Your task to perform on an android device: star an email in the gmail app Image 0: 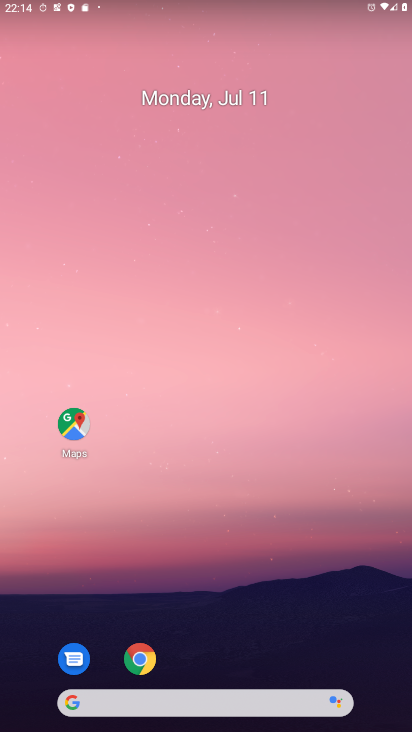
Step 0: click (327, 23)
Your task to perform on an android device: star an email in the gmail app Image 1: 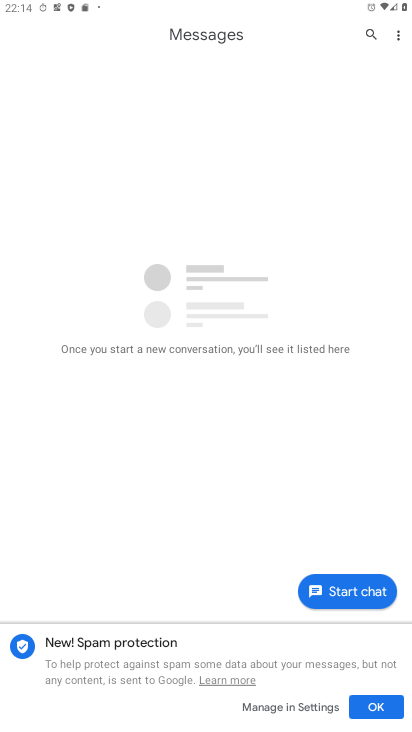
Step 1: press home button
Your task to perform on an android device: star an email in the gmail app Image 2: 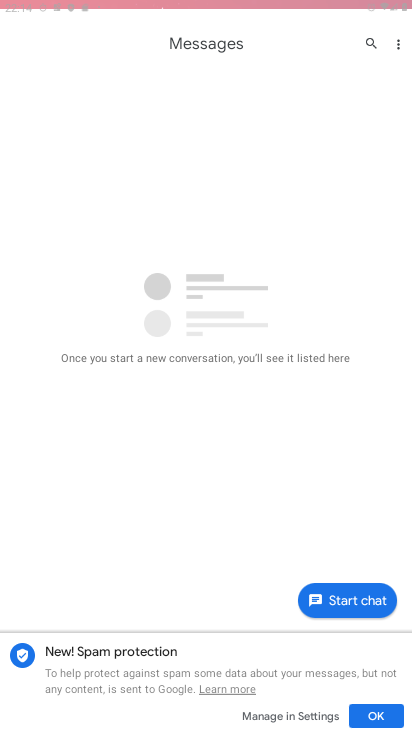
Step 2: drag from (210, 530) to (238, 169)
Your task to perform on an android device: star an email in the gmail app Image 3: 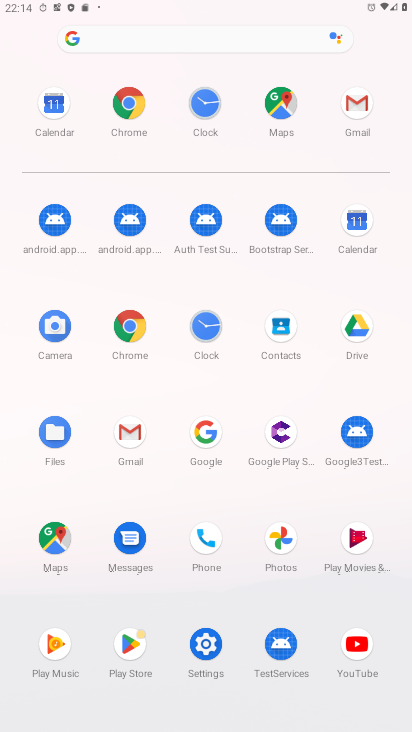
Step 3: click (124, 428)
Your task to perform on an android device: star an email in the gmail app Image 4: 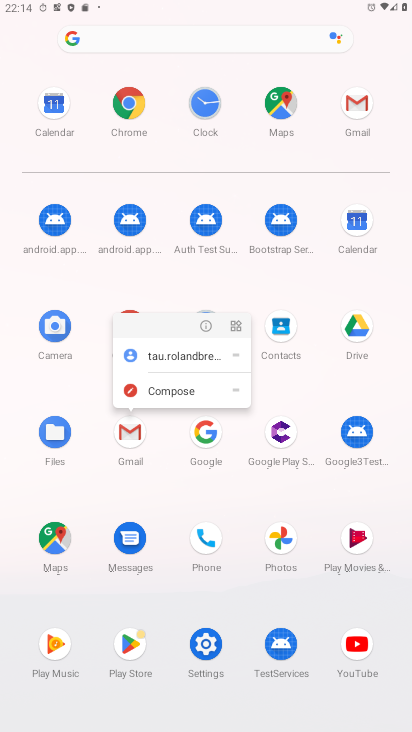
Step 4: click (205, 326)
Your task to perform on an android device: star an email in the gmail app Image 5: 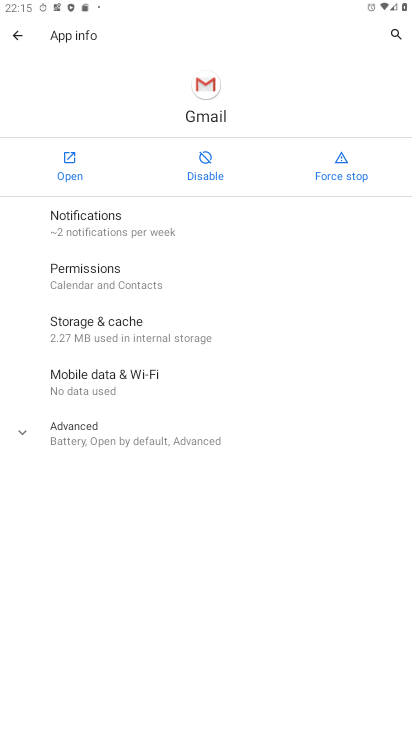
Step 5: click (57, 158)
Your task to perform on an android device: star an email in the gmail app Image 6: 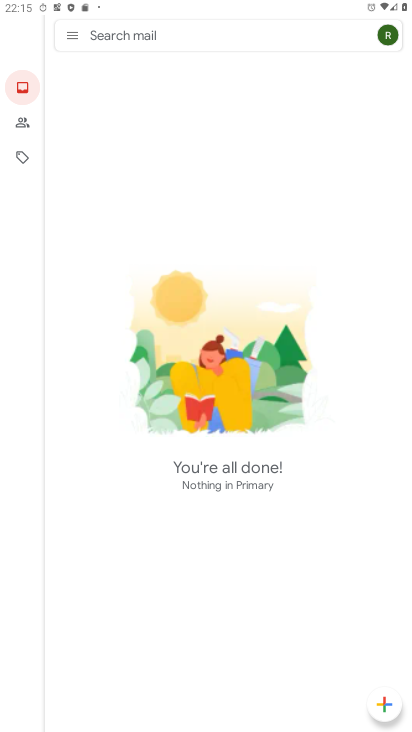
Step 6: click (238, 362)
Your task to perform on an android device: star an email in the gmail app Image 7: 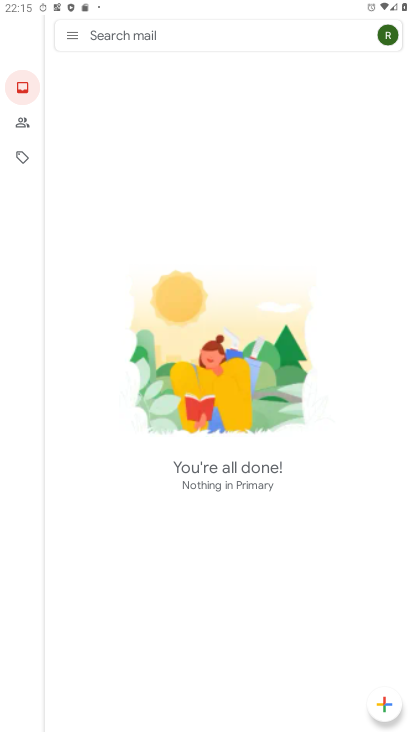
Step 7: task complete